Your task to perform on an android device: stop showing notifications on the lock screen Image 0: 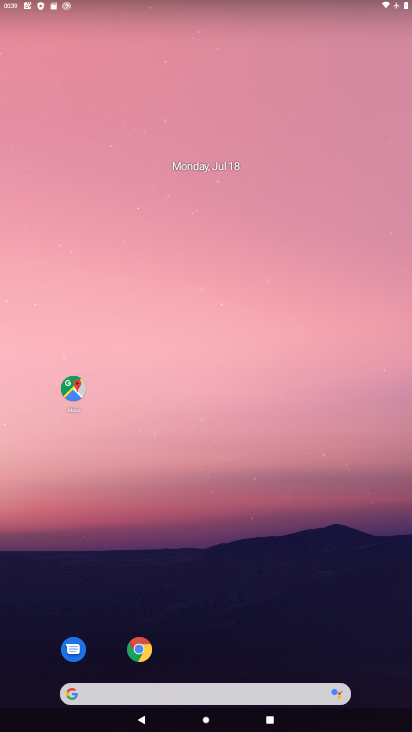
Step 0: drag from (171, 637) to (228, 77)
Your task to perform on an android device: stop showing notifications on the lock screen Image 1: 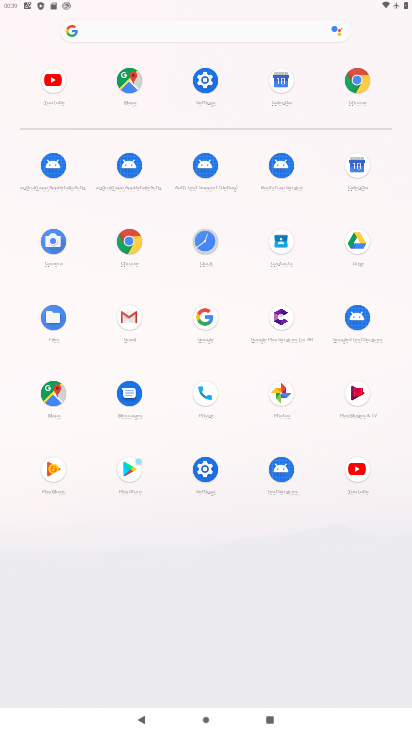
Step 1: click (202, 470)
Your task to perform on an android device: stop showing notifications on the lock screen Image 2: 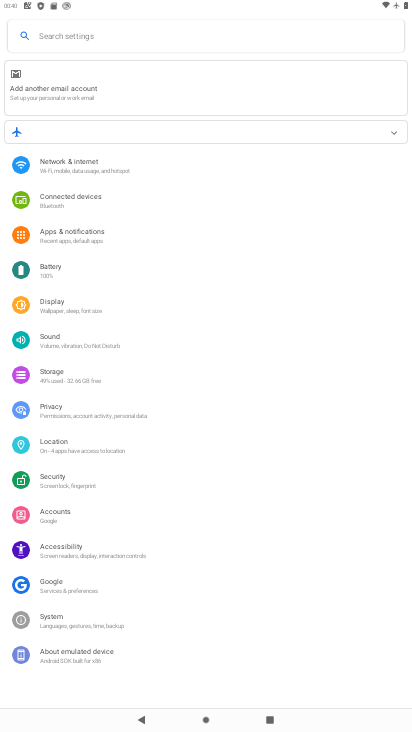
Step 2: click (79, 234)
Your task to perform on an android device: stop showing notifications on the lock screen Image 3: 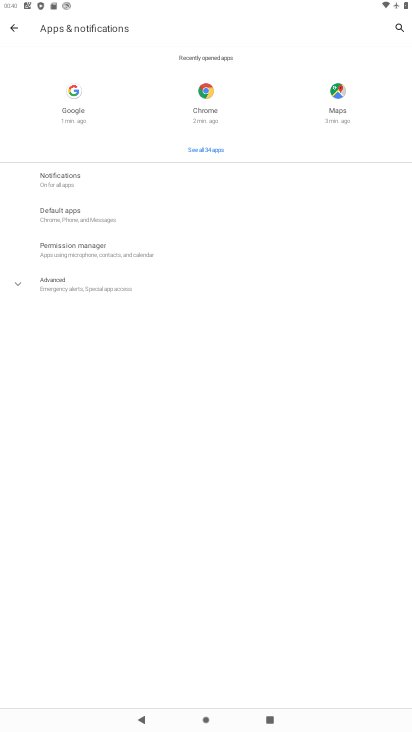
Step 3: click (71, 176)
Your task to perform on an android device: stop showing notifications on the lock screen Image 4: 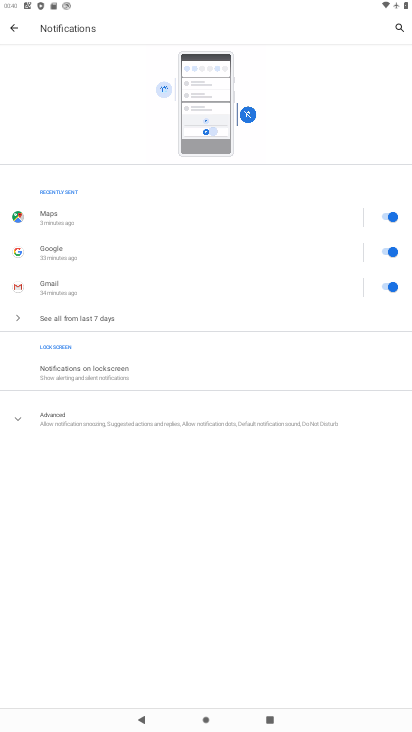
Step 4: click (82, 372)
Your task to perform on an android device: stop showing notifications on the lock screen Image 5: 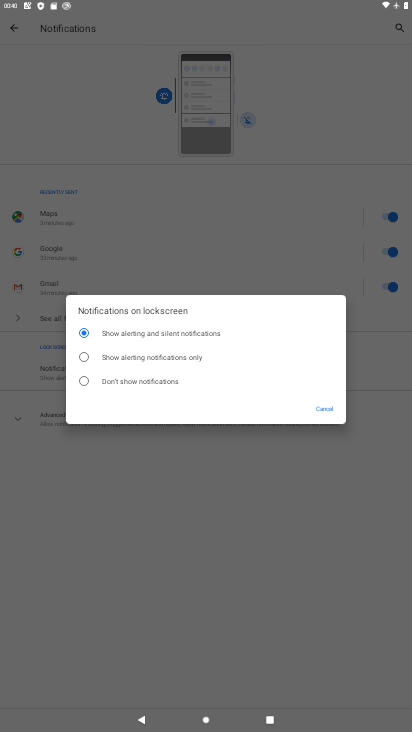
Step 5: click (77, 382)
Your task to perform on an android device: stop showing notifications on the lock screen Image 6: 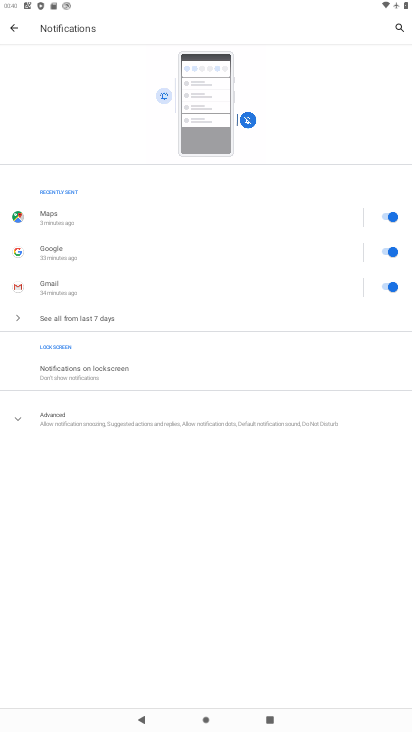
Step 6: task complete